Your task to perform on an android device: stop showing notifications on the lock screen Image 0: 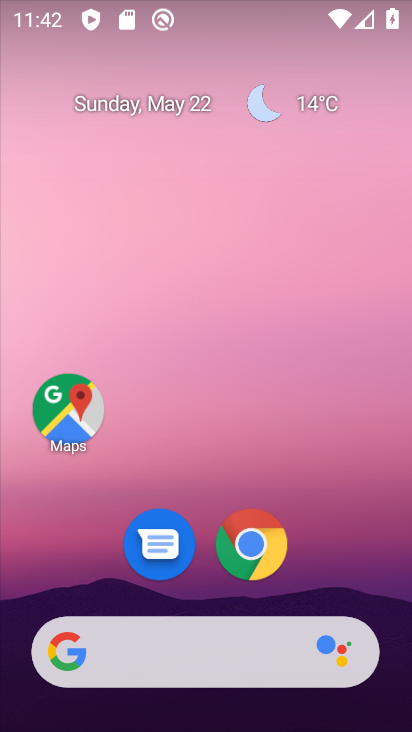
Step 0: drag from (285, 218) to (260, 104)
Your task to perform on an android device: stop showing notifications on the lock screen Image 1: 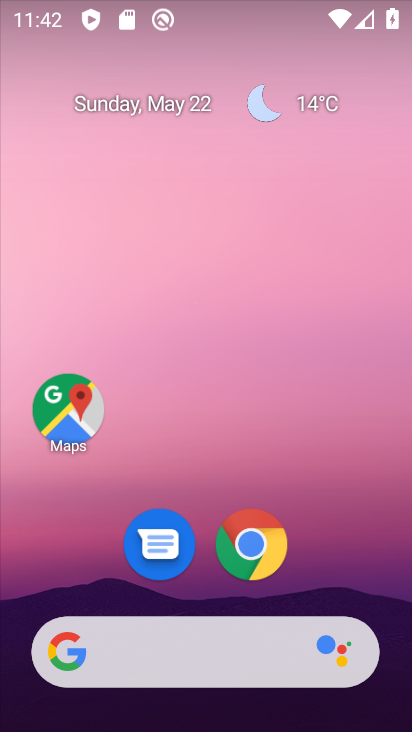
Step 1: drag from (333, 470) to (274, 17)
Your task to perform on an android device: stop showing notifications on the lock screen Image 2: 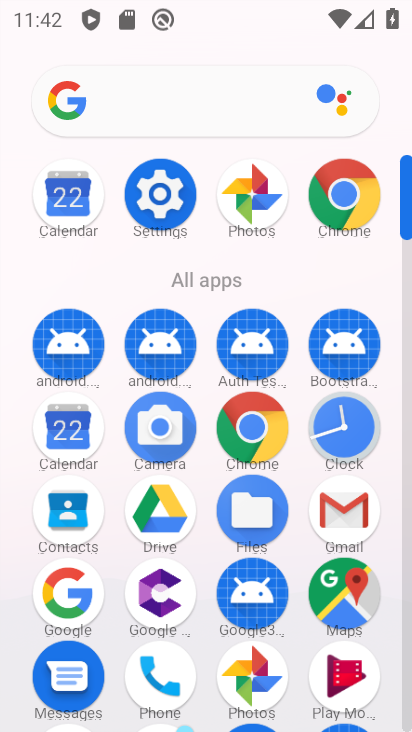
Step 2: click (174, 176)
Your task to perform on an android device: stop showing notifications on the lock screen Image 3: 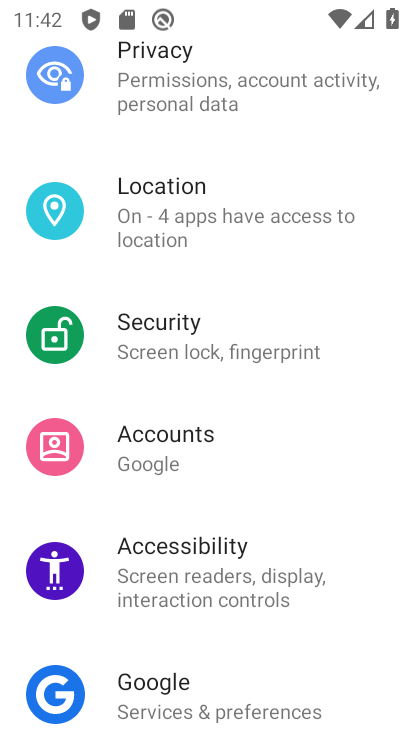
Step 3: drag from (209, 228) to (241, 691)
Your task to perform on an android device: stop showing notifications on the lock screen Image 4: 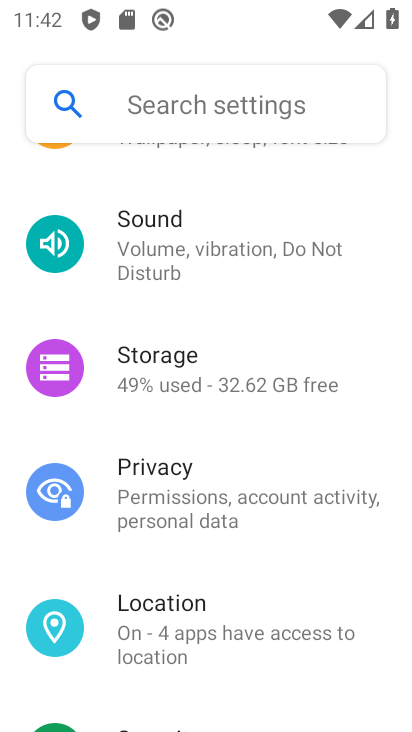
Step 4: drag from (207, 286) to (235, 716)
Your task to perform on an android device: stop showing notifications on the lock screen Image 5: 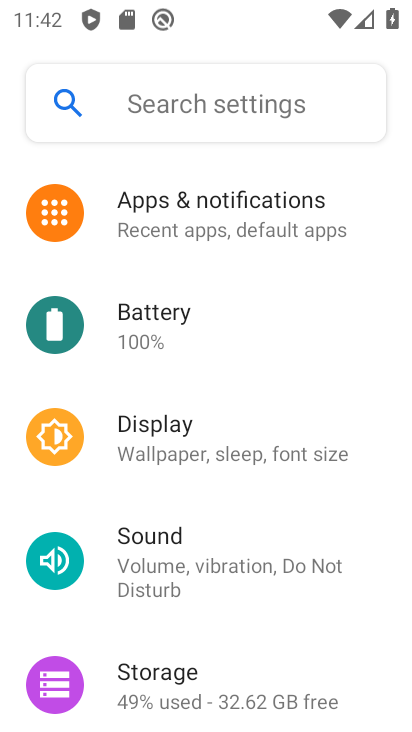
Step 5: click (191, 228)
Your task to perform on an android device: stop showing notifications on the lock screen Image 6: 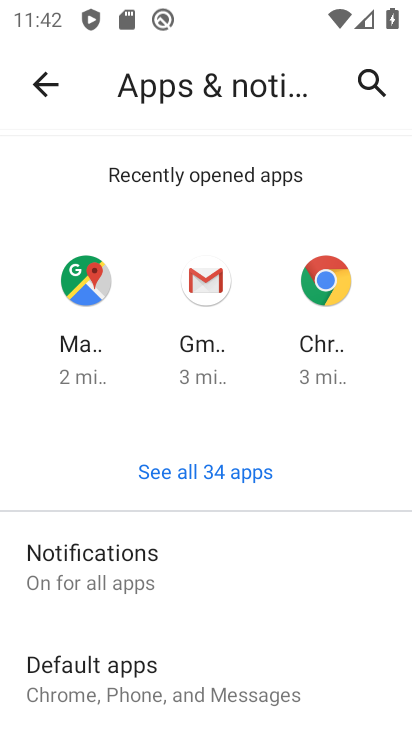
Step 6: drag from (215, 561) to (251, 187)
Your task to perform on an android device: stop showing notifications on the lock screen Image 7: 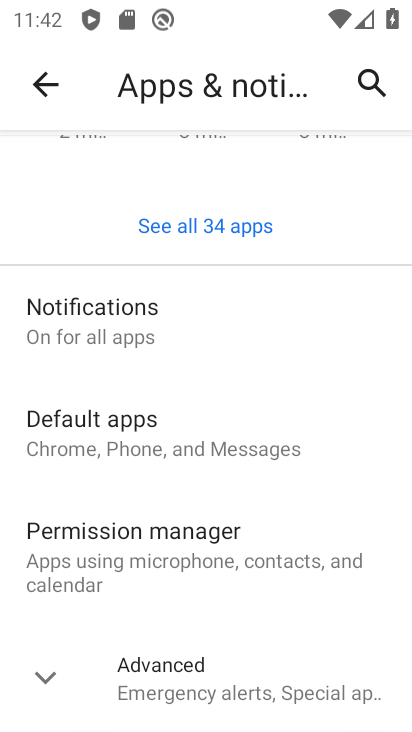
Step 7: click (113, 301)
Your task to perform on an android device: stop showing notifications on the lock screen Image 8: 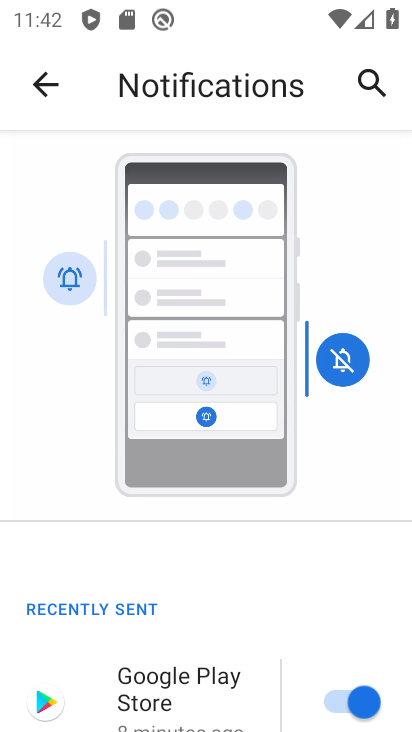
Step 8: drag from (146, 653) to (209, 161)
Your task to perform on an android device: stop showing notifications on the lock screen Image 9: 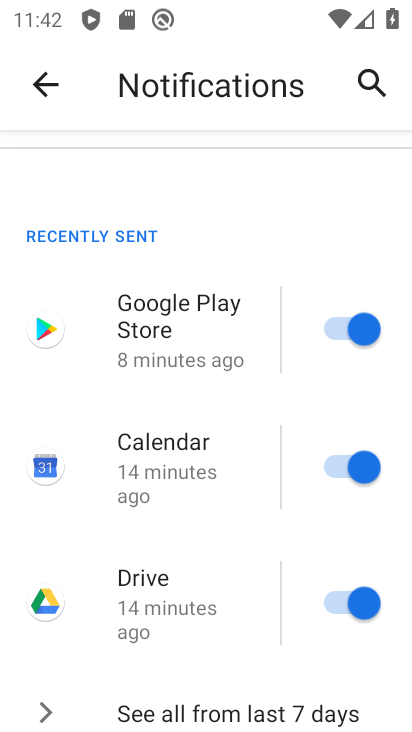
Step 9: drag from (166, 593) to (175, 145)
Your task to perform on an android device: stop showing notifications on the lock screen Image 10: 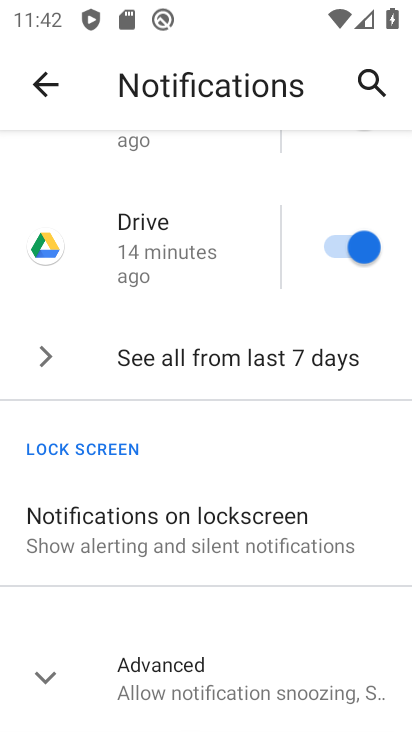
Step 10: click (174, 513)
Your task to perform on an android device: stop showing notifications on the lock screen Image 11: 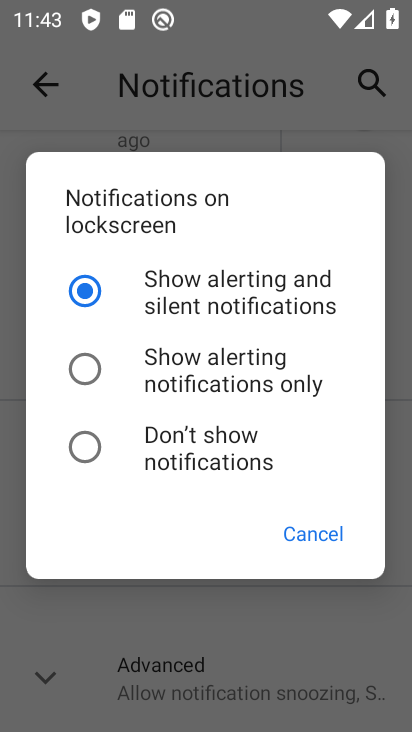
Step 11: click (230, 457)
Your task to perform on an android device: stop showing notifications on the lock screen Image 12: 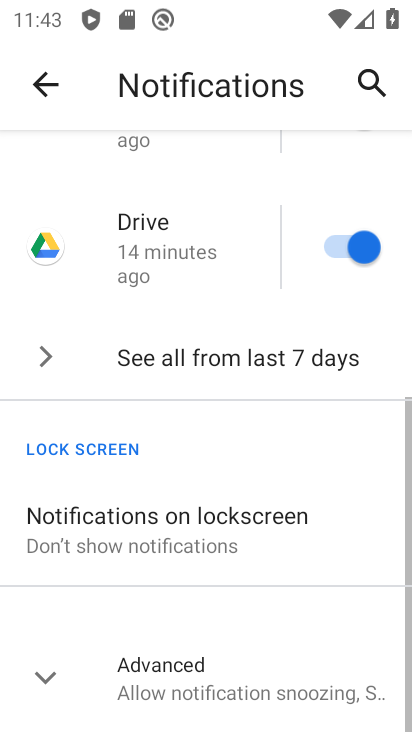
Step 12: task complete